Your task to perform on an android device: Open Android settings Image 0: 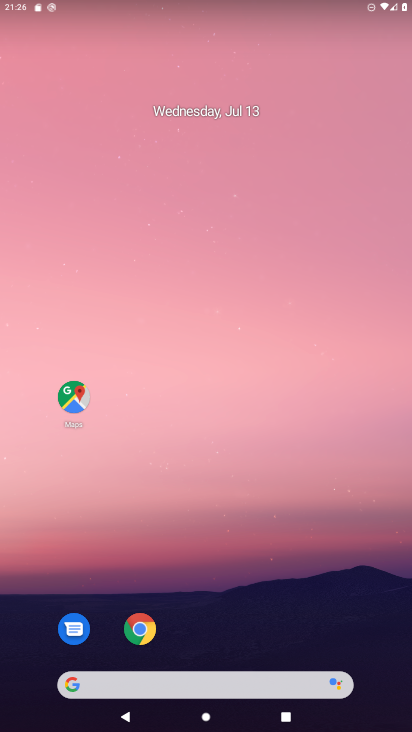
Step 0: drag from (266, 628) to (279, 9)
Your task to perform on an android device: Open Android settings Image 1: 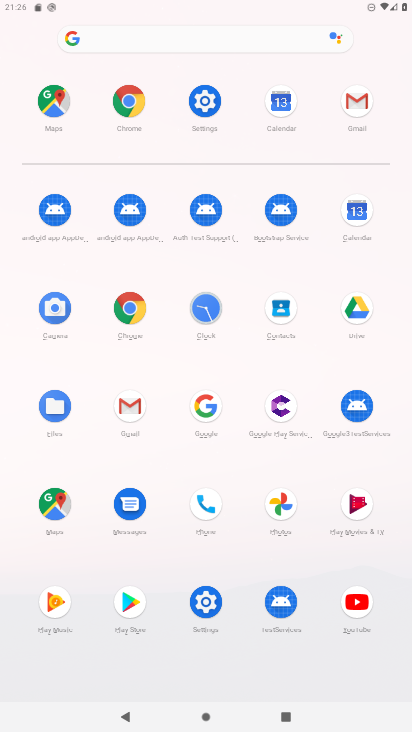
Step 1: click (201, 589)
Your task to perform on an android device: Open Android settings Image 2: 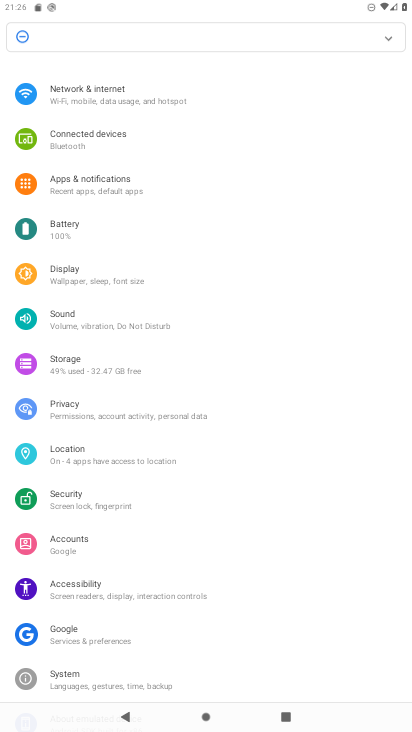
Step 2: drag from (161, 649) to (163, 87)
Your task to perform on an android device: Open Android settings Image 3: 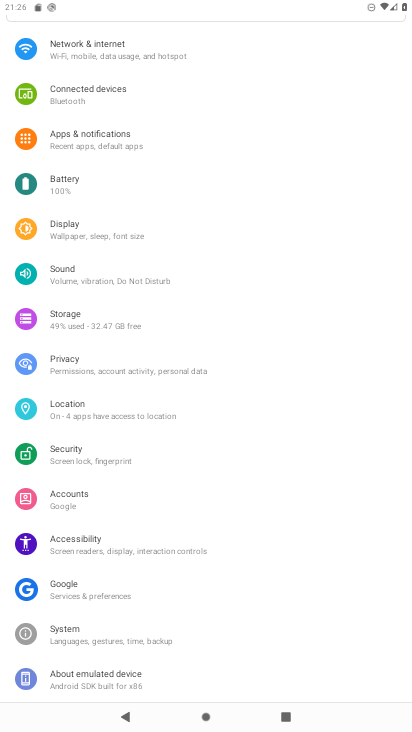
Step 3: click (77, 671)
Your task to perform on an android device: Open Android settings Image 4: 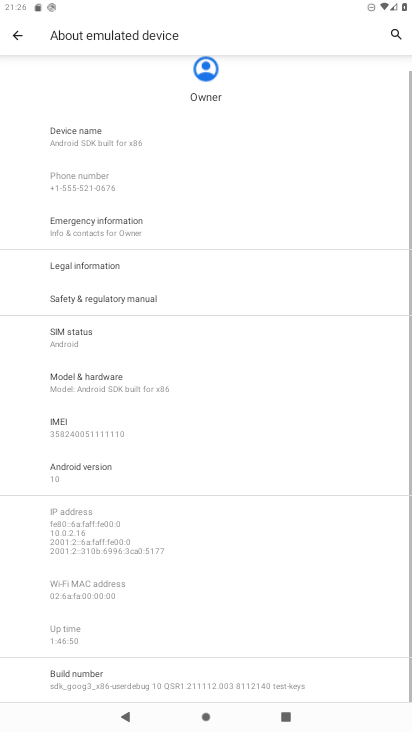
Step 4: drag from (196, 591) to (209, 282)
Your task to perform on an android device: Open Android settings Image 5: 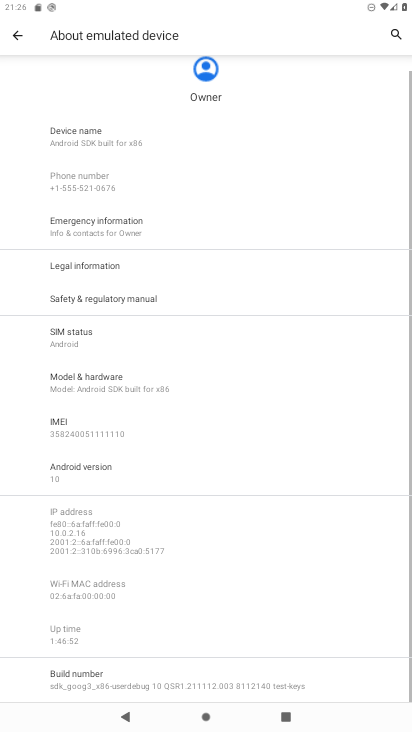
Step 5: click (44, 471)
Your task to perform on an android device: Open Android settings Image 6: 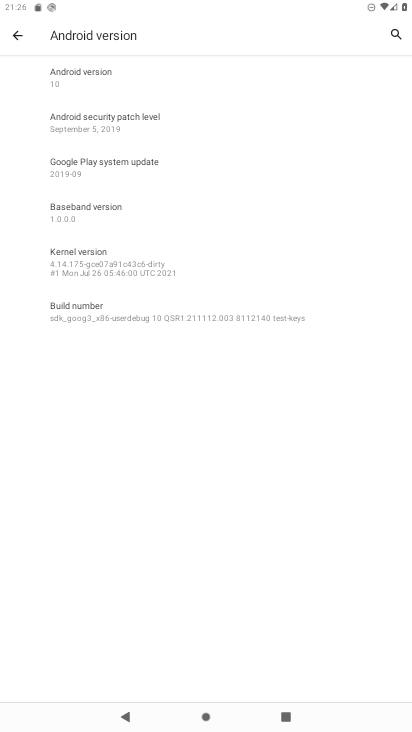
Step 6: click (84, 71)
Your task to perform on an android device: Open Android settings Image 7: 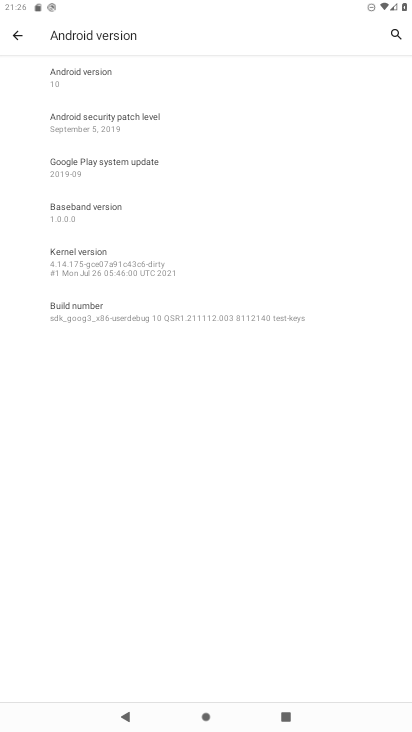
Step 7: task complete